Your task to perform on an android device: allow notifications from all sites in the chrome app Image 0: 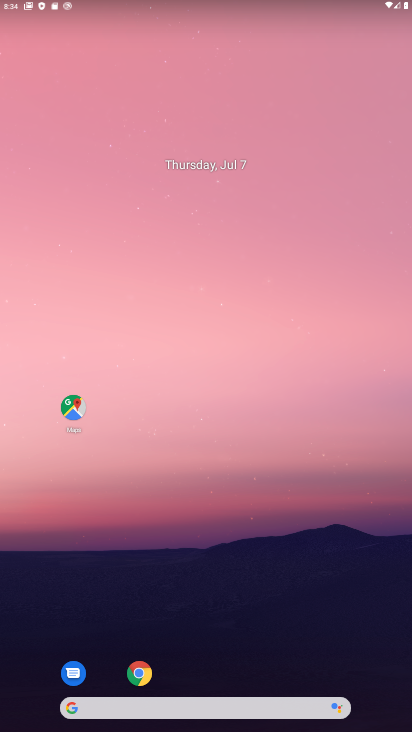
Step 0: click (133, 665)
Your task to perform on an android device: allow notifications from all sites in the chrome app Image 1: 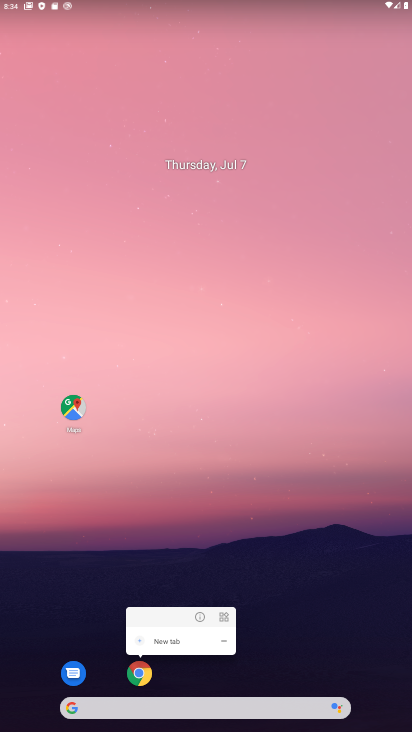
Step 1: click (143, 678)
Your task to perform on an android device: allow notifications from all sites in the chrome app Image 2: 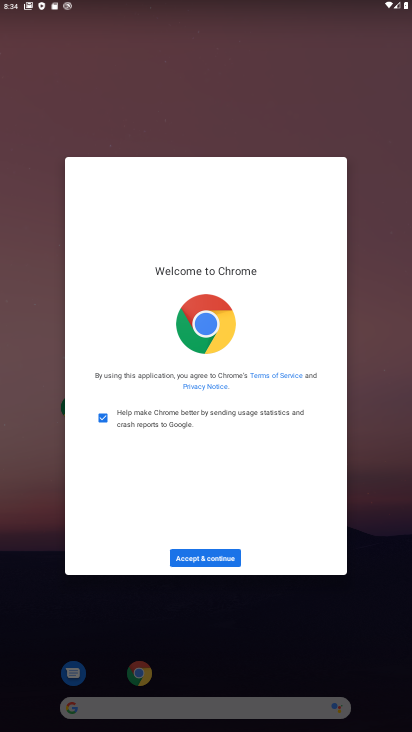
Step 2: click (226, 565)
Your task to perform on an android device: allow notifications from all sites in the chrome app Image 3: 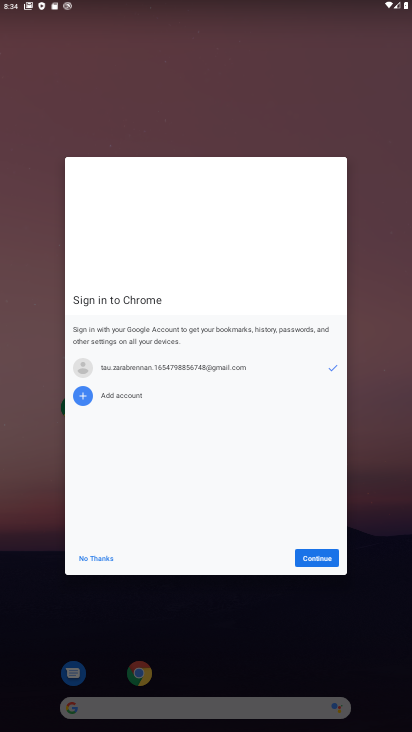
Step 3: click (314, 559)
Your task to perform on an android device: allow notifications from all sites in the chrome app Image 4: 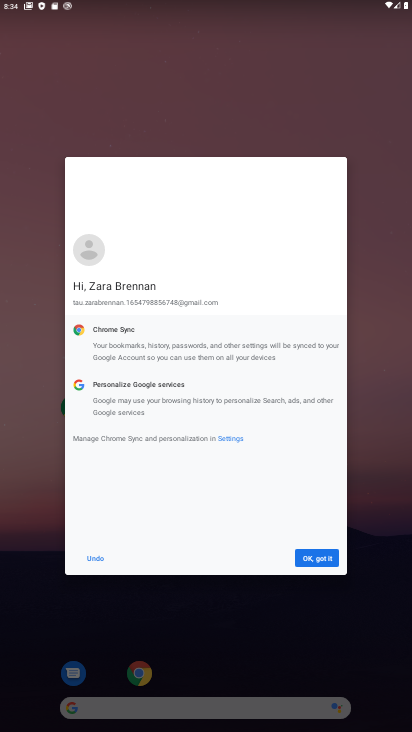
Step 4: click (314, 559)
Your task to perform on an android device: allow notifications from all sites in the chrome app Image 5: 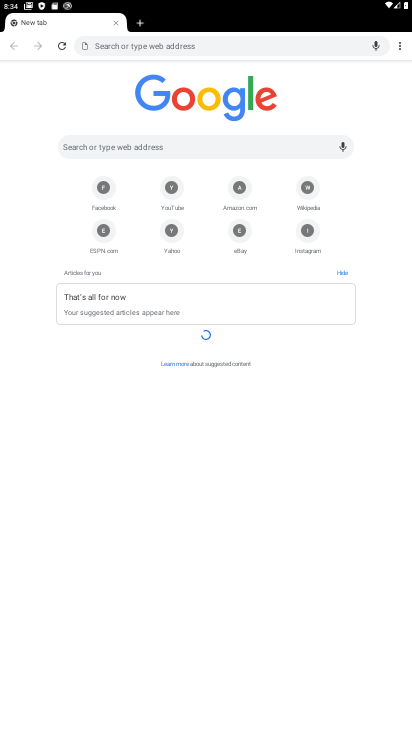
Step 5: click (399, 39)
Your task to perform on an android device: allow notifications from all sites in the chrome app Image 6: 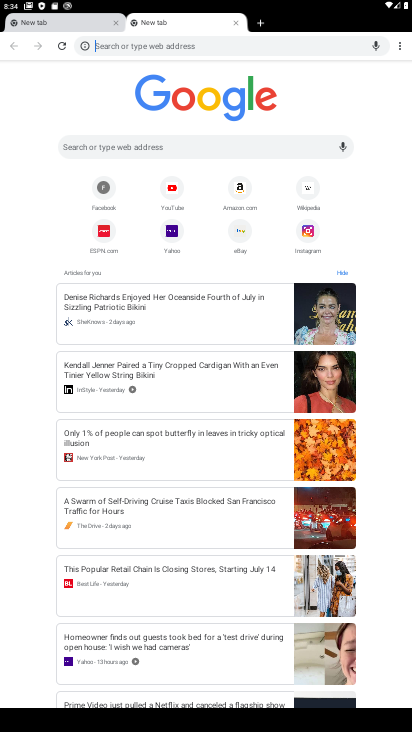
Step 6: click (403, 43)
Your task to perform on an android device: allow notifications from all sites in the chrome app Image 7: 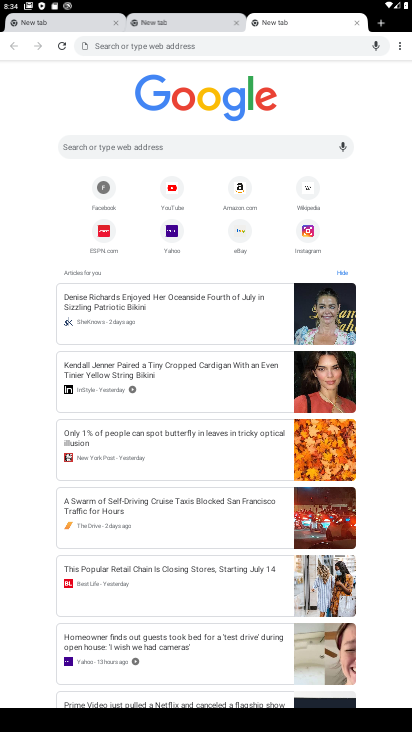
Step 7: click (398, 51)
Your task to perform on an android device: allow notifications from all sites in the chrome app Image 8: 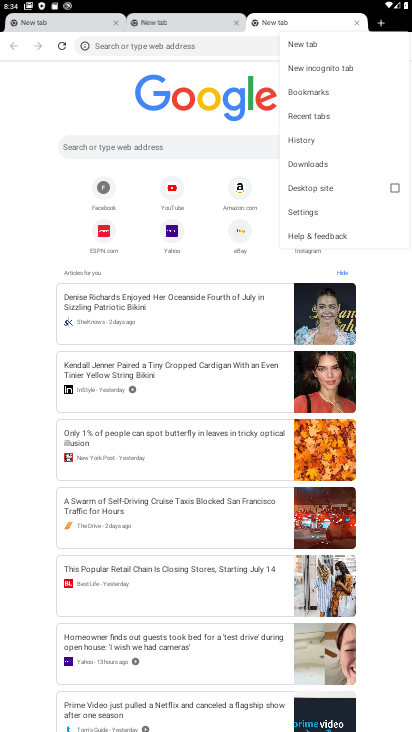
Step 8: click (314, 208)
Your task to perform on an android device: allow notifications from all sites in the chrome app Image 9: 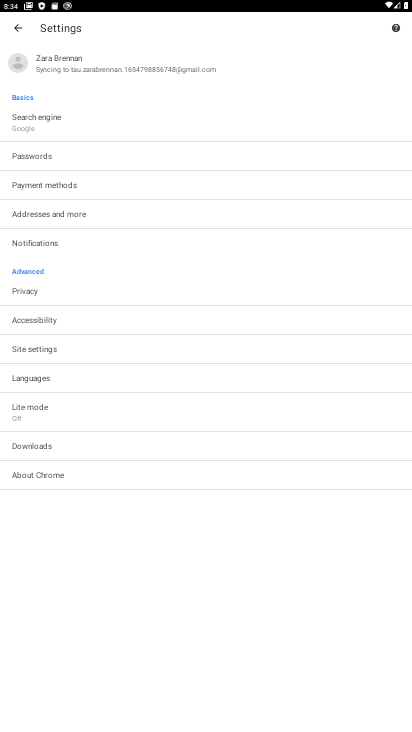
Step 9: click (100, 243)
Your task to perform on an android device: allow notifications from all sites in the chrome app Image 10: 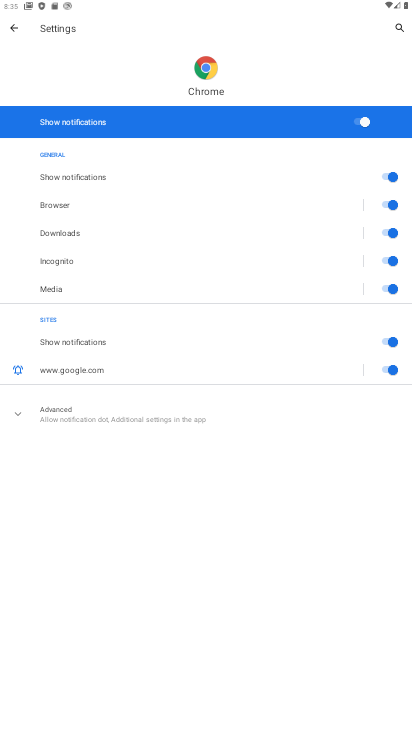
Step 10: task complete